Your task to perform on an android device: manage bookmarks in the chrome app Image 0: 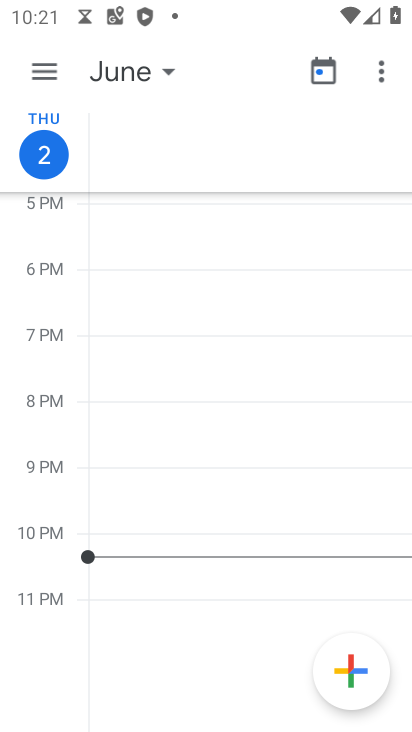
Step 0: press back button
Your task to perform on an android device: manage bookmarks in the chrome app Image 1: 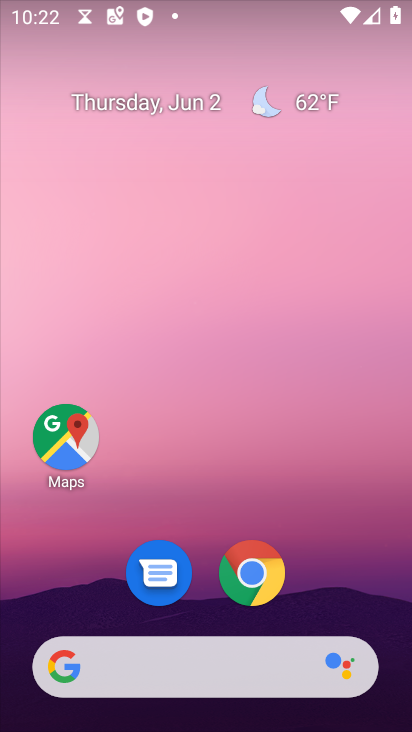
Step 1: click (253, 569)
Your task to perform on an android device: manage bookmarks in the chrome app Image 2: 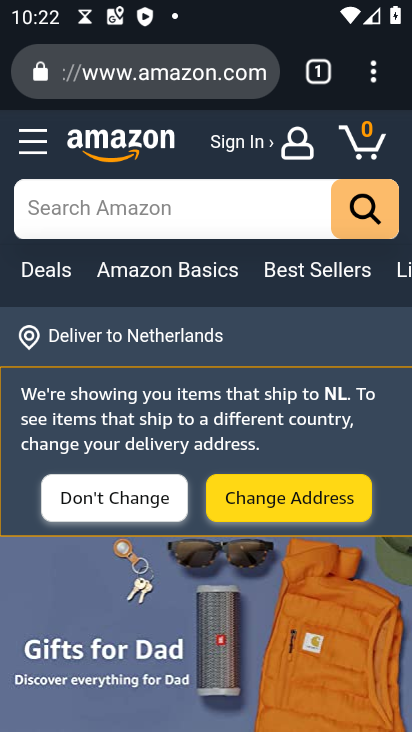
Step 2: click (377, 72)
Your task to perform on an android device: manage bookmarks in the chrome app Image 3: 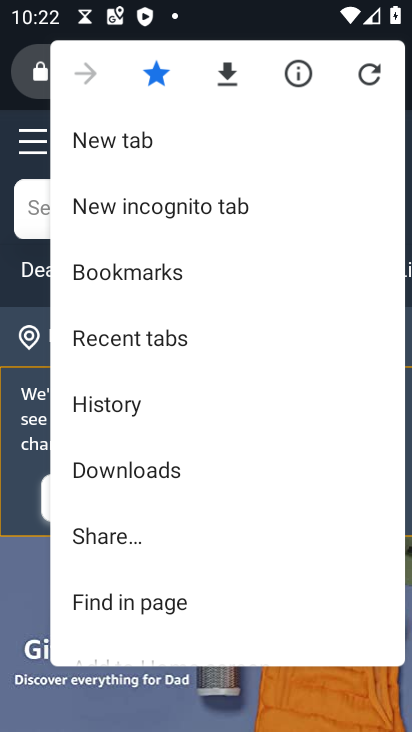
Step 3: click (167, 269)
Your task to perform on an android device: manage bookmarks in the chrome app Image 4: 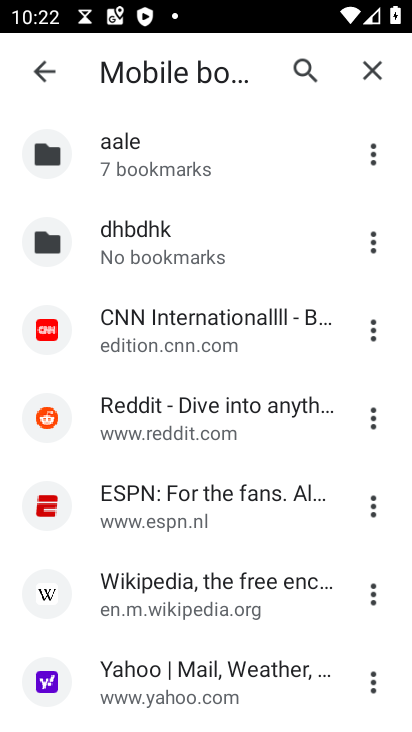
Step 4: click (375, 159)
Your task to perform on an android device: manage bookmarks in the chrome app Image 5: 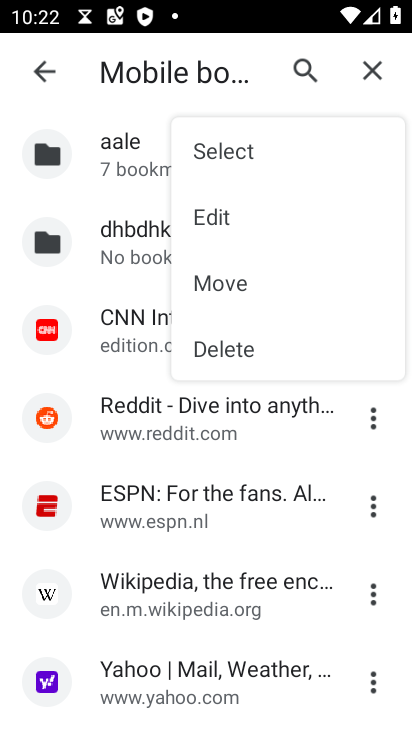
Step 5: click (219, 353)
Your task to perform on an android device: manage bookmarks in the chrome app Image 6: 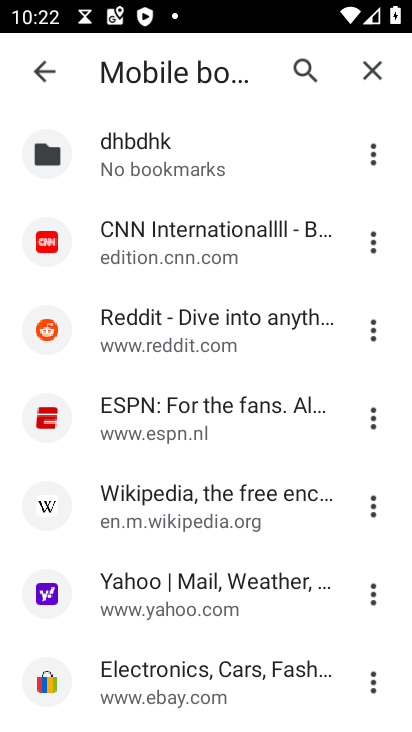
Step 6: task complete